Your task to perform on an android device: Open network settings Image 0: 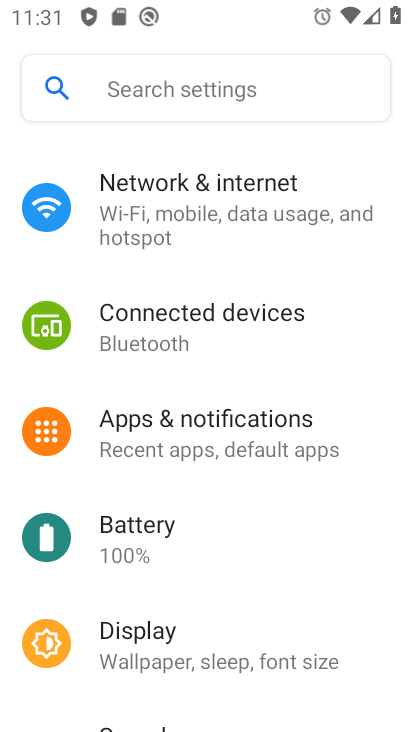
Step 0: press home button
Your task to perform on an android device: Open network settings Image 1: 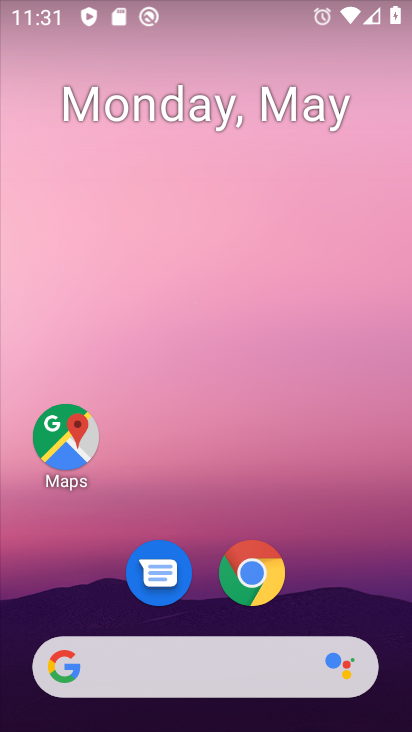
Step 1: drag from (143, 730) to (151, 89)
Your task to perform on an android device: Open network settings Image 2: 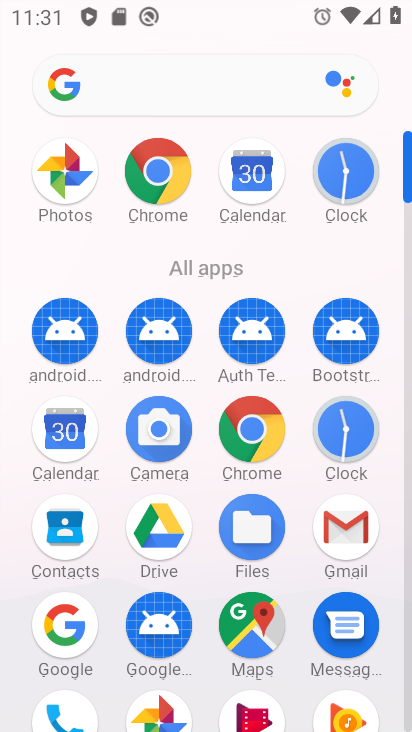
Step 2: drag from (200, 629) to (205, 200)
Your task to perform on an android device: Open network settings Image 3: 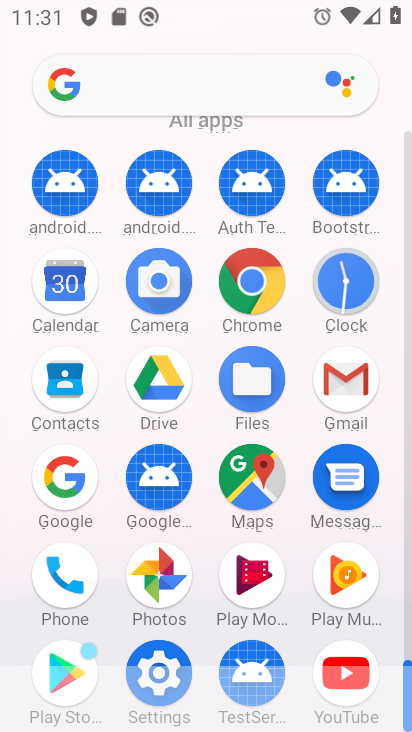
Step 3: click (163, 670)
Your task to perform on an android device: Open network settings Image 4: 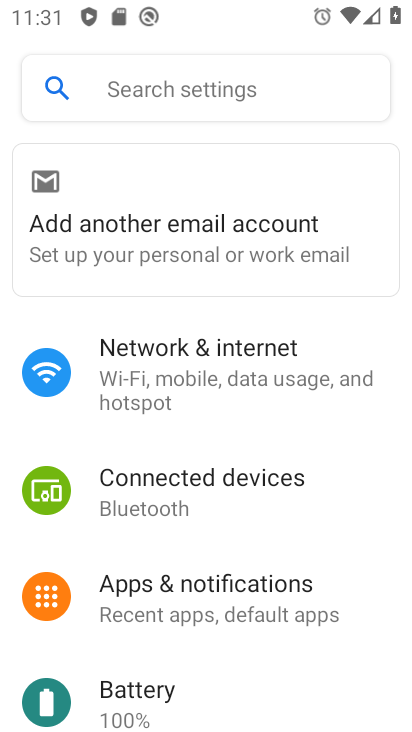
Step 4: click (213, 404)
Your task to perform on an android device: Open network settings Image 5: 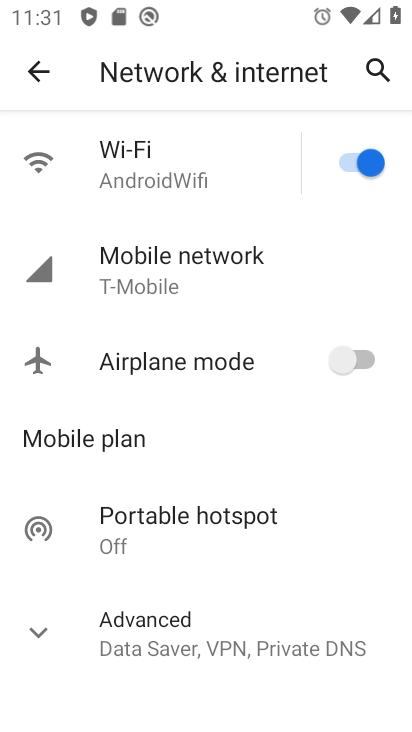
Step 5: click (149, 293)
Your task to perform on an android device: Open network settings Image 6: 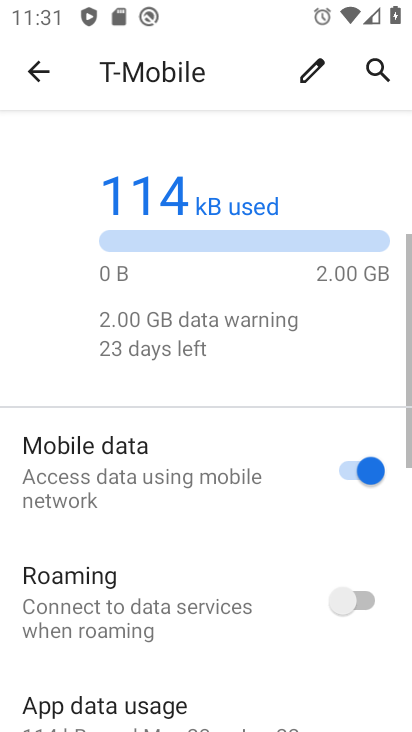
Step 6: drag from (195, 658) to (197, 240)
Your task to perform on an android device: Open network settings Image 7: 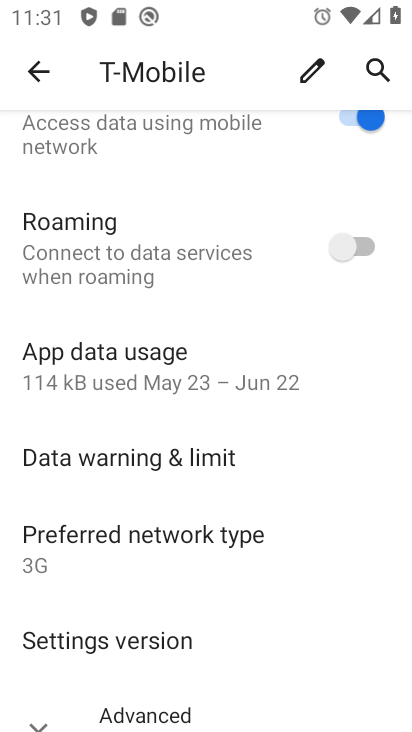
Step 7: drag from (213, 612) to (242, 338)
Your task to perform on an android device: Open network settings Image 8: 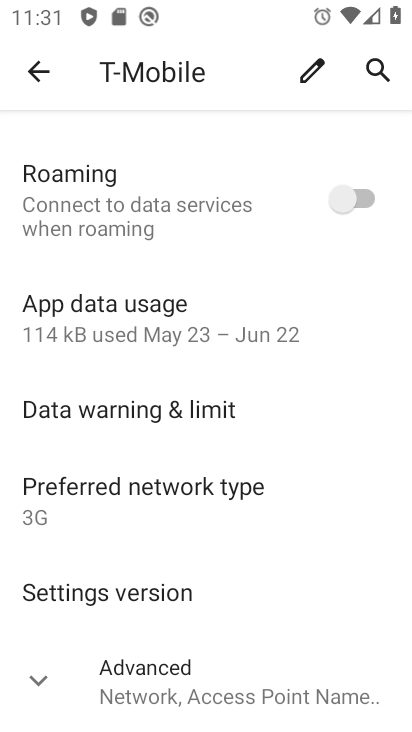
Step 8: click (175, 689)
Your task to perform on an android device: Open network settings Image 9: 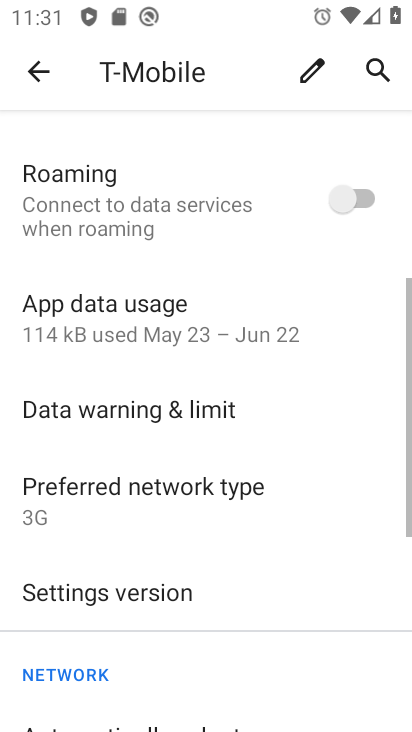
Step 9: task complete